Your task to perform on an android device: Open Yahoo.com Image 0: 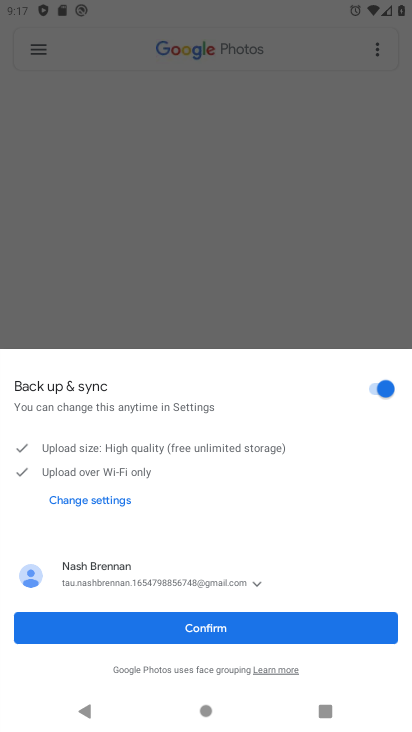
Step 0: press back button
Your task to perform on an android device: Open Yahoo.com Image 1: 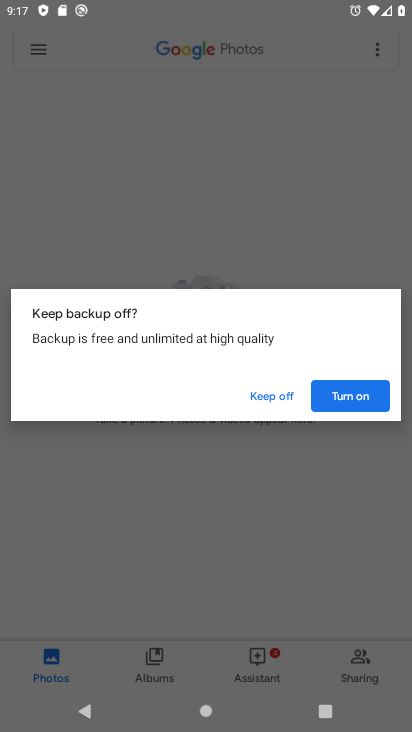
Step 1: press home button
Your task to perform on an android device: Open Yahoo.com Image 2: 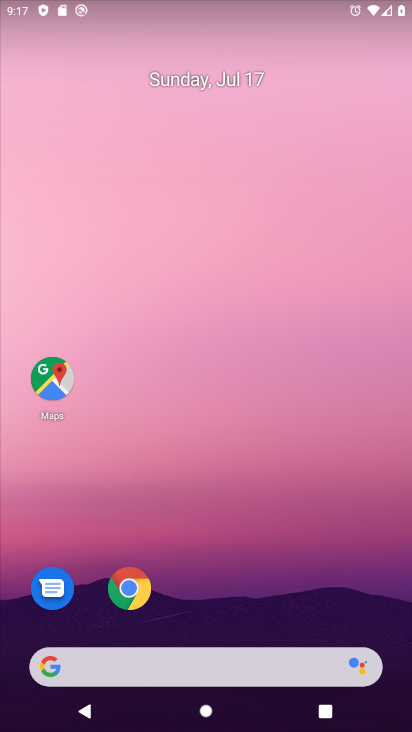
Step 2: drag from (354, 476) to (299, 89)
Your task to perform on an android device: Open Yahoo.com Image 3: 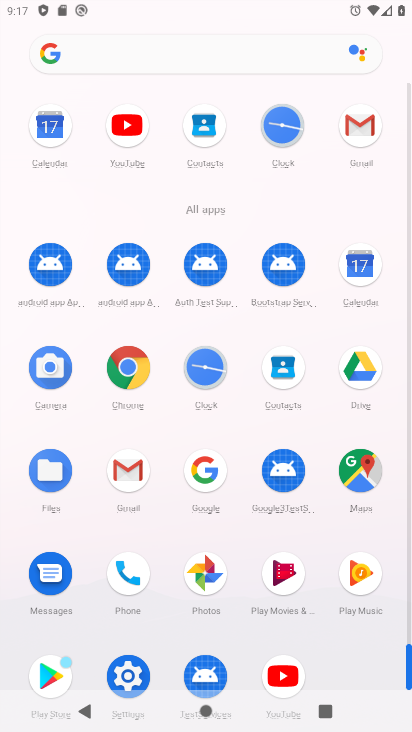
Step 3: click (131, 352)
Your task to perform on an android device: Open Yahoo.com Image 4: 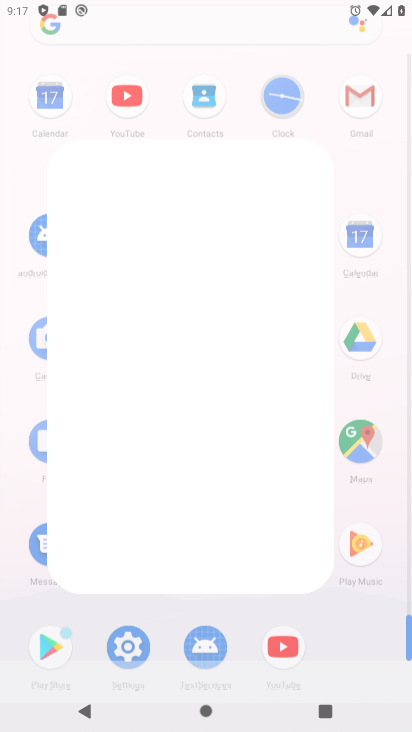
Step 4: click (132, 358)
Your task to perform on an android device: Open Yahoo.com Image 5: 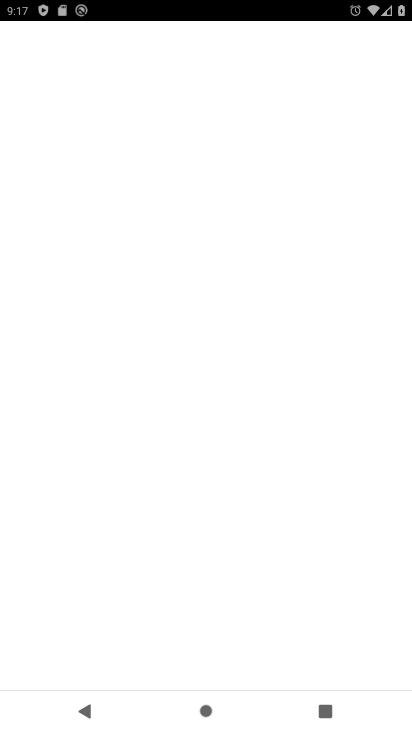
Step 5: click (134, 358)
Your task to perform on an android device: Open Yahoo.com Image 6: 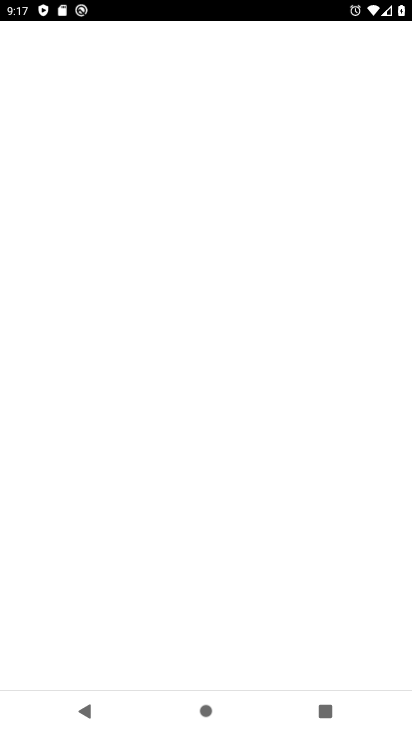
Step 6: click (135, 356)
Your task to perform on an android device: Open Yahoo.com Image 7: 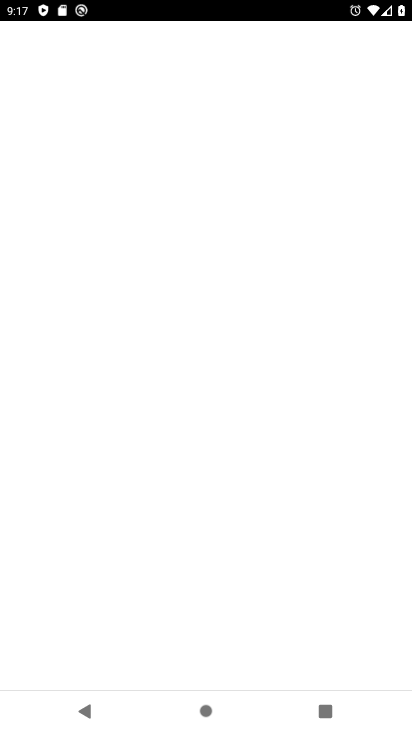
Step 7: click (134, 355)
Your task to perform on an android device: Open Yahoo.com Image 8: 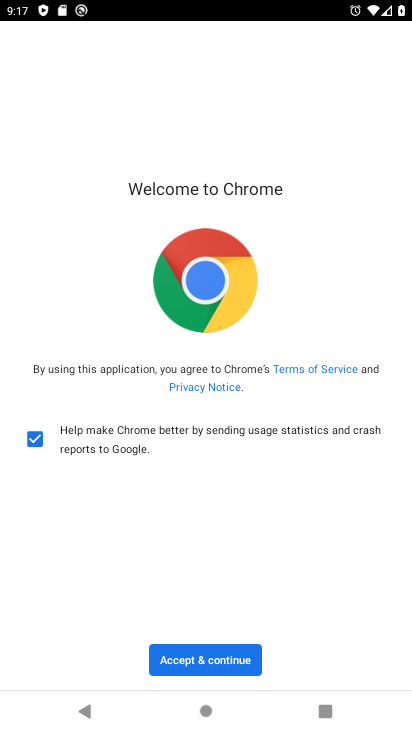
Step 8: click (221, 660)
Your task to perform on an android device: Open Yahoo.com Image 9: 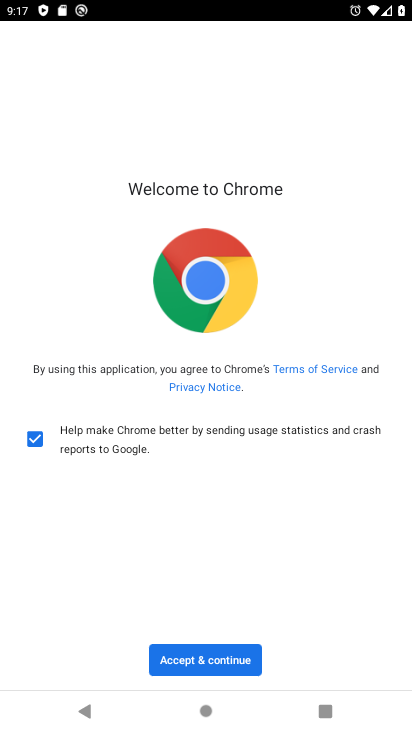
Step 9: click (221, 660)
Your task to perform on an android device: Open Yahoo.com Image 10: 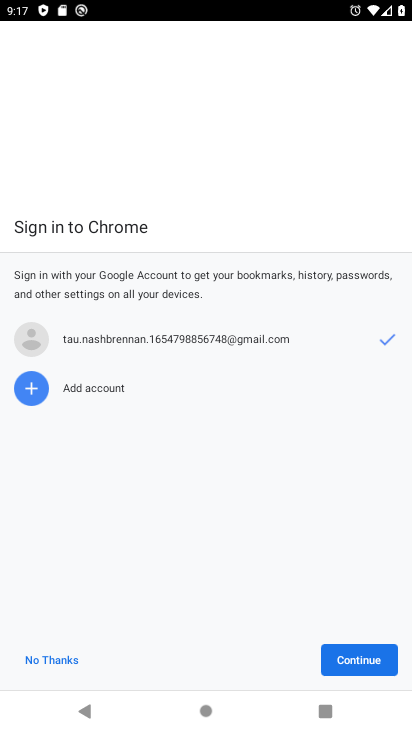
Step 10: click (221, 662)
Your task to perform on an android device: Open Yahoo.com Image 11: 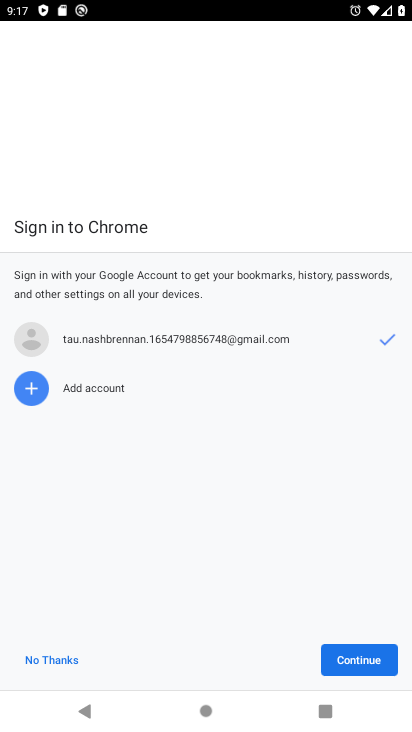
Step 11: click (221, 662)
Your task to perform on an android device: Open Yahoo.com Image 12: 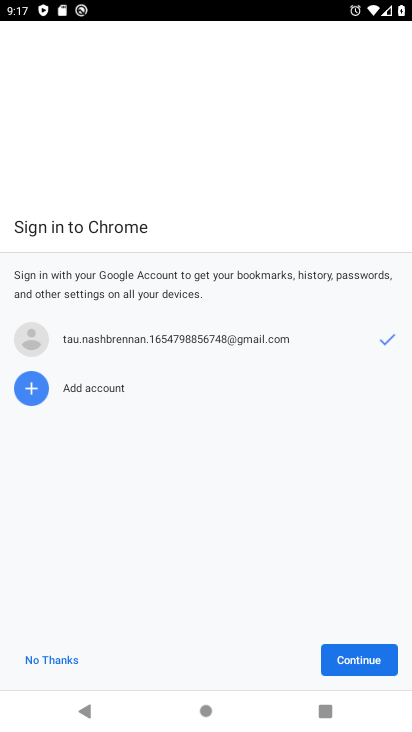
Step 12: click (224, 650)
Your task to perform on an android device: Open Yahoo.com Image 13: 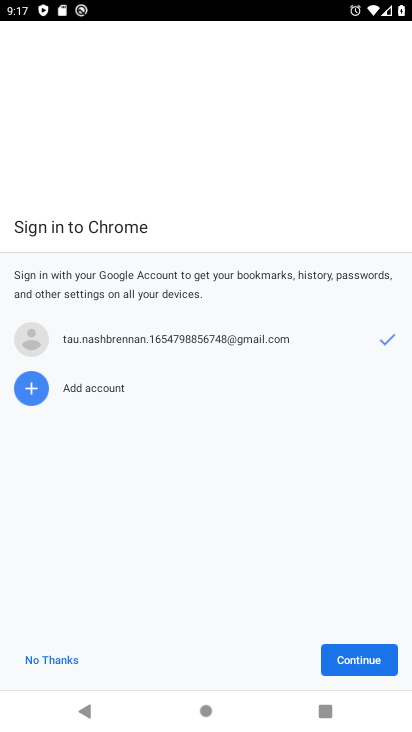
Step 13: click (337, 649)
Your task to perform on an android device: Open Yahoo.com Image 14: 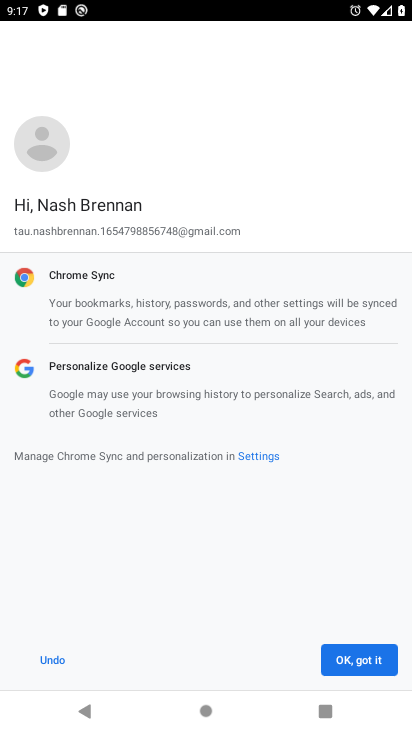
Step 14: click (355, 660)
Your task to perform on an android device: Open Yahoo.com Image 15: 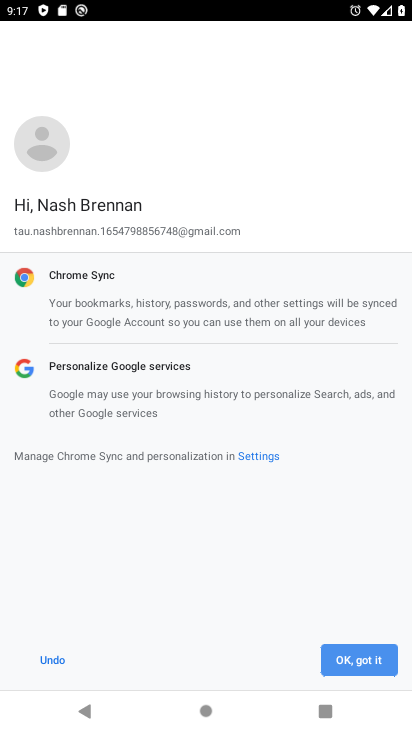
Step 15: click (356, 659)
Your task to perform on an android device: Open Yahoo.com Image 16: 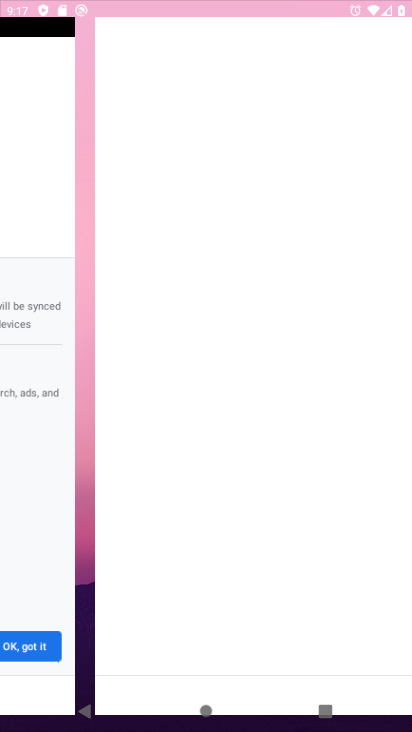
Step 16: click (355, 658)
Your task to perform on an android device: Open Yahoo.com Image 17: 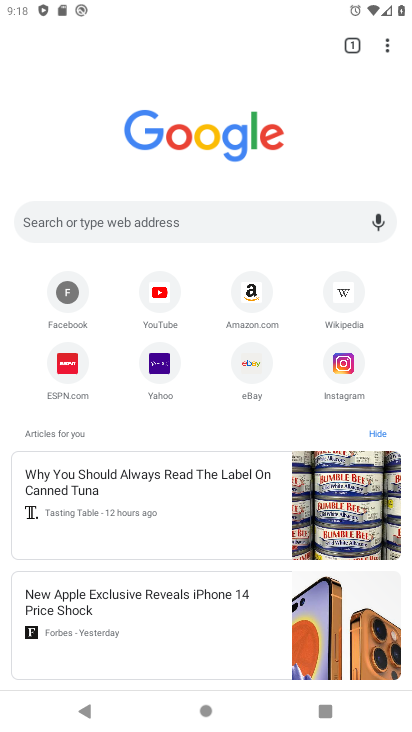
Step 17: click (168, 366)
Your task to perform on an android device: Open Yahoo.com Image 18: 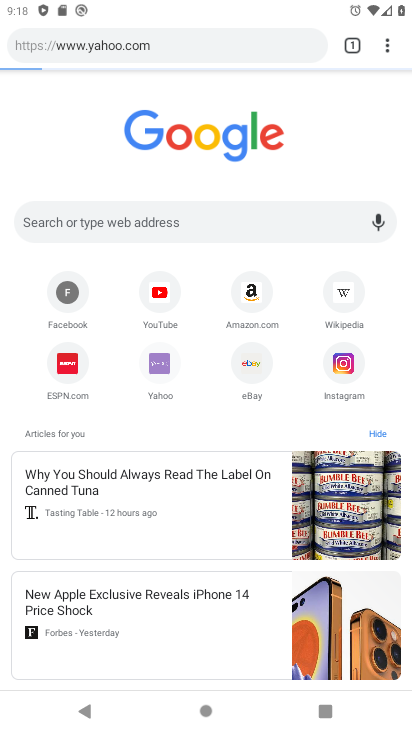
Step 18: click (167, 365)
Your task to perform on an android device: Open Yahoo.com Image 19: 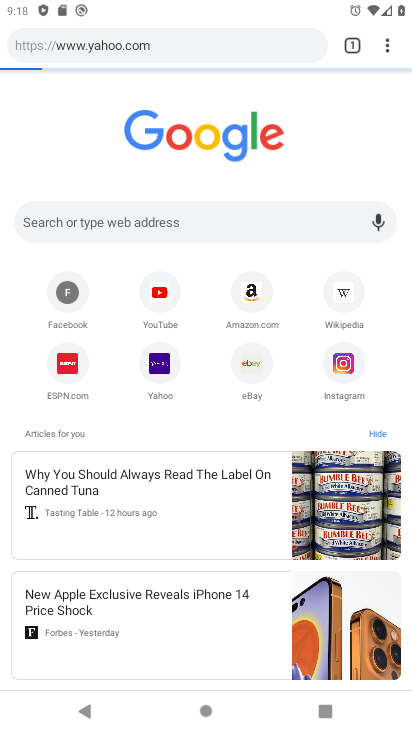
Step 19: click (167, 365)
Your task to perform on an android device: Open Yahoo.com Image 20: 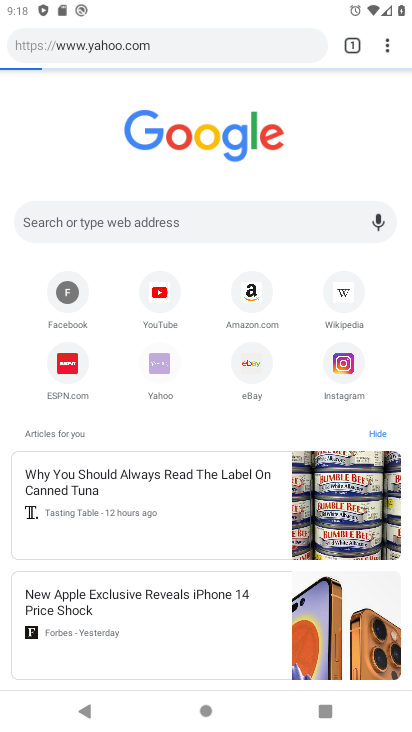
Step 20: click (167, 364)
Your task to perform on an android device: Open Yahoo.com Image 21: 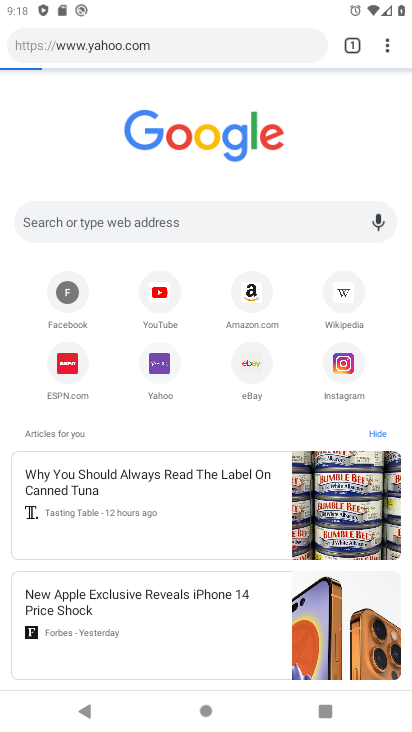
Step 21: click (168, 363)
Your task to perform on an android device: Open Yahoo.com Image 22: 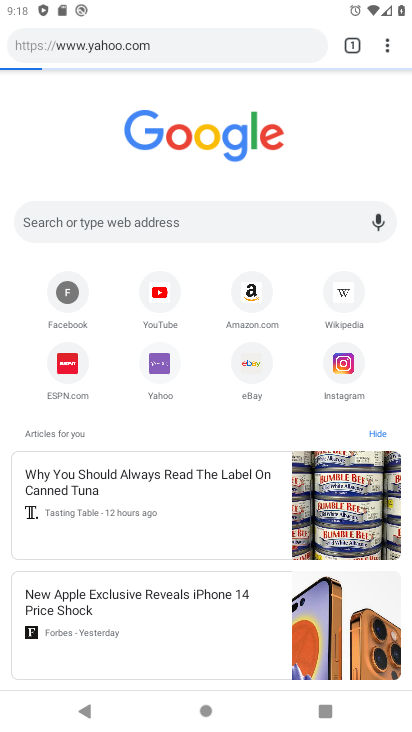
Step 22: click (170, 363)
Your task to perform on an android device: Open Yahoo.com Image 23: 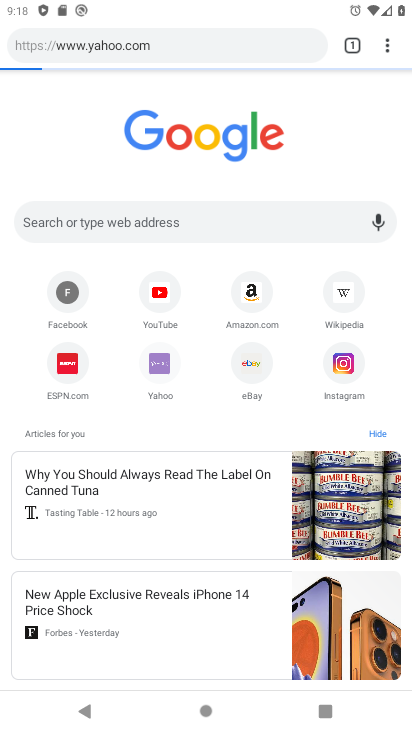
Step 23: click (172, 362)
Your task to perform on an android device: Open Yahoo.com Image 24: 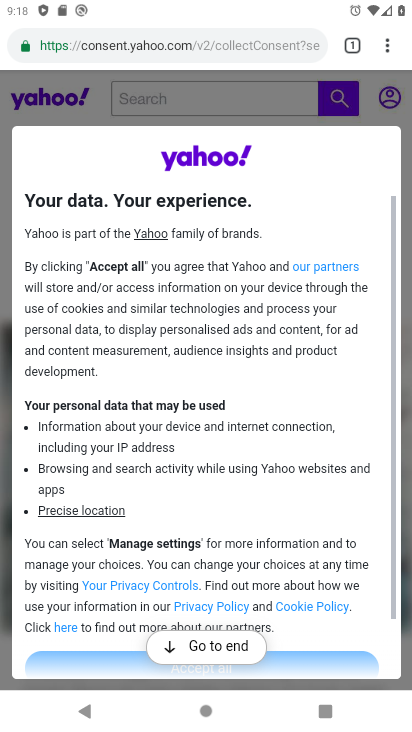
Step 24: task complete